Your task to perform on an android device: Go to wifi settings Image 0: 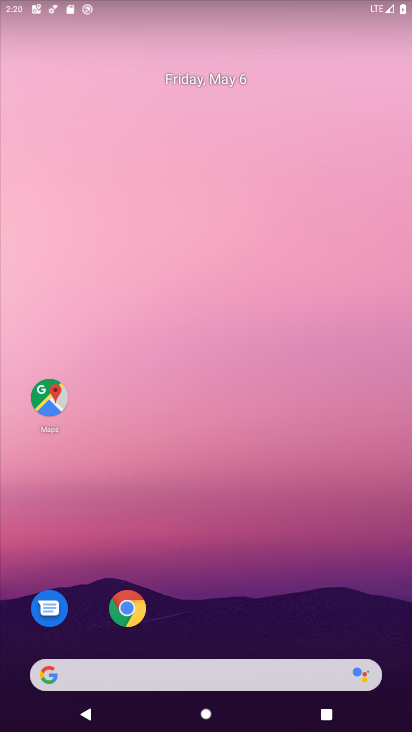
Step 0: drag from (221, 613) to (288, 28)
Your task to perform on an android device: Go to wifi settings Image 1: 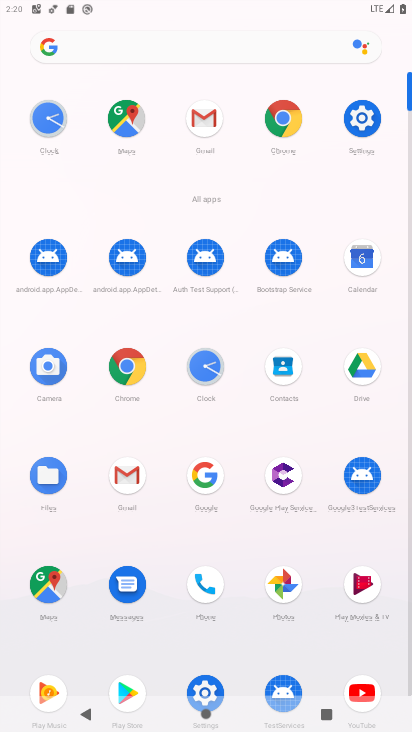
Step 1: click (352, 113)
Your task to perform on an android device: Go to wifi settings Image 2: 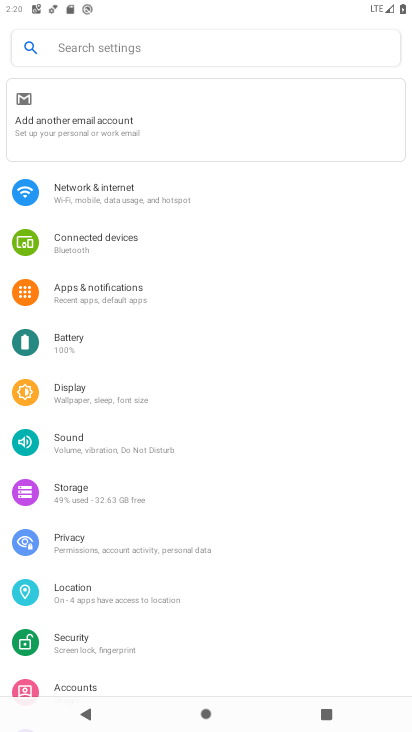
Step 2: click (136, 200)
Your task to perform on an android device: Go to wifi settings Image 3: 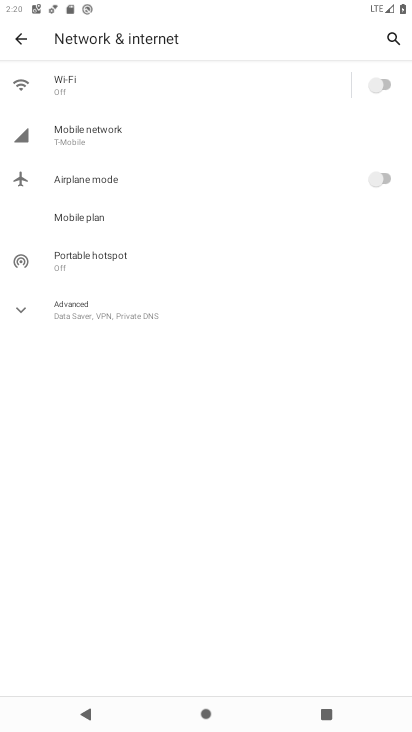
Step 3: click (124, 90)
Your task to perform on an android device: Go to wifi settings Image 4: 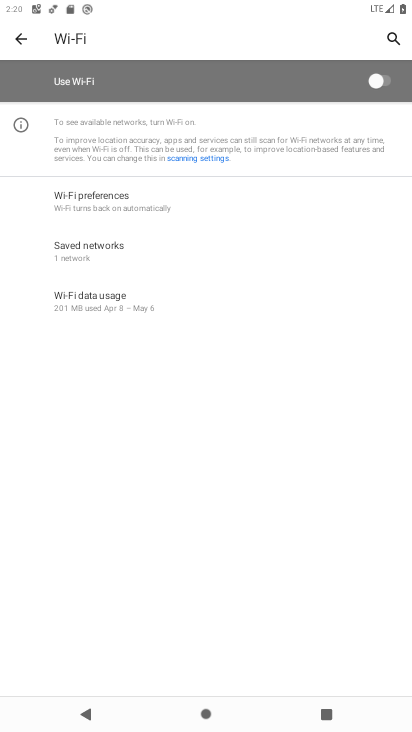
Step 4: task complete